Your task to perform on an android device: Go to sound settings Image 0: 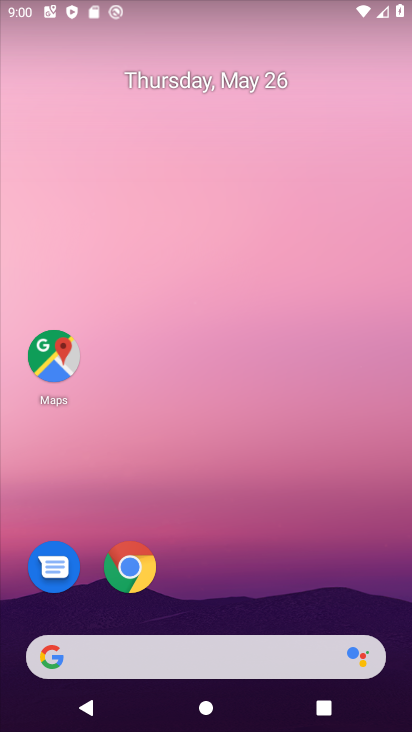
Step 0: press home button
Your task to perform on an android device: Go to sound settings Image 1: 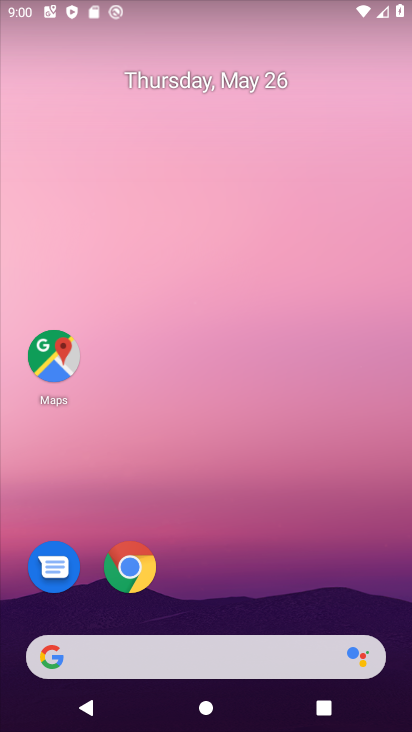
Step 1: drag from (159, 644) to (320, 112)
Your task to perform on an android device: Go to sound settings Image 2: 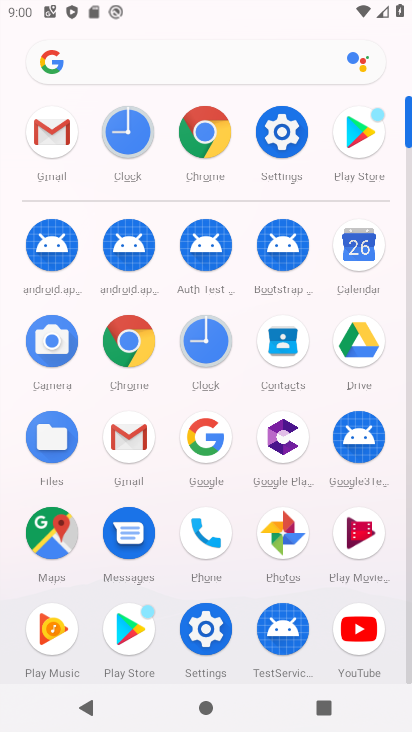
Step 2: click (294, 131)
Your task to perform on an android device: Go to sound settings Image 3: 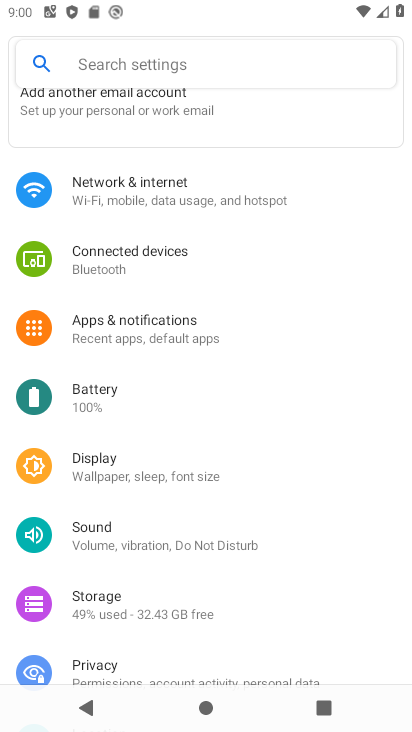
Step 3: click (101, 528)
Your task to perform on an android device: Go to sound settings Image 4: 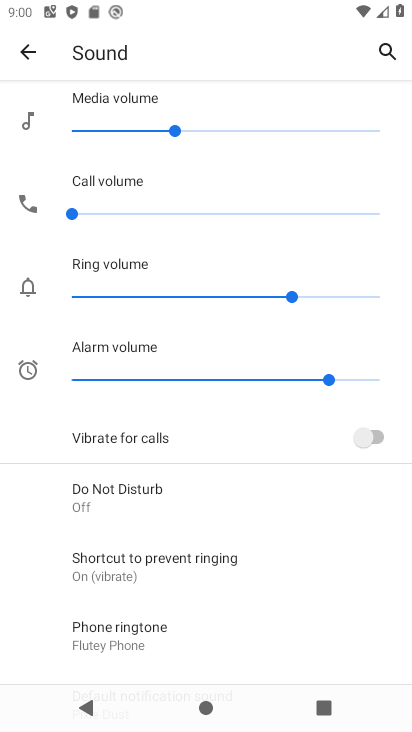
Step 4: task complete